Your task to perform on an android device: Open Android settings Image 0: 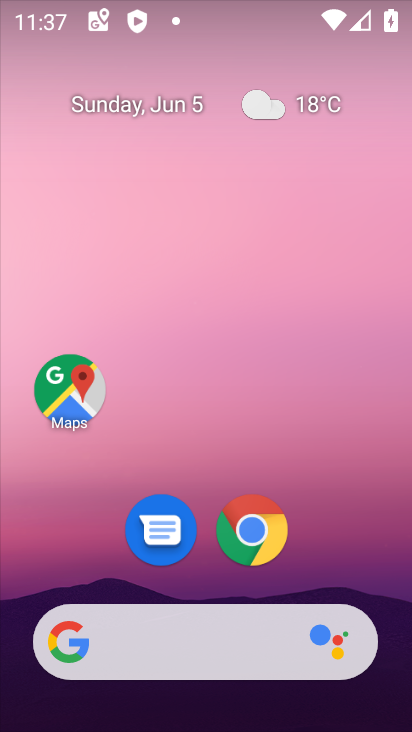
Step 0: drag from (342, 329) to (267, 38)
Your task to perform on an android device: Open Android settings Image 1: 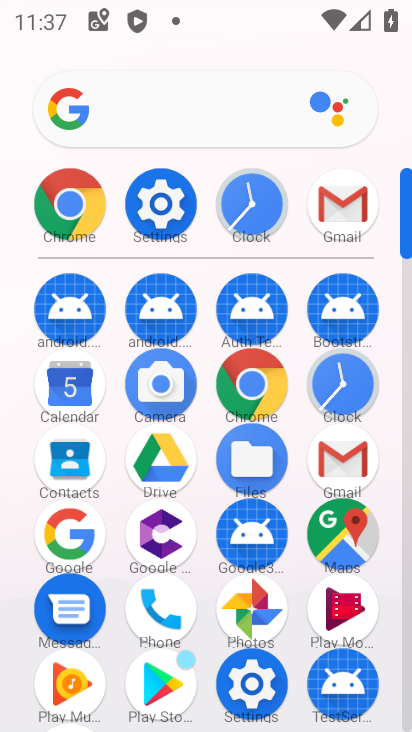
Step 1: click (165, 204)
Your task to perform on an android device: Open Android settings Image 2: 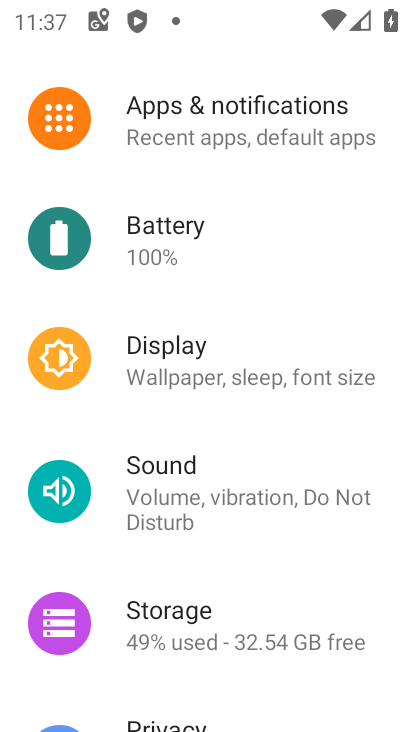
Step 2: task complete